Your task to perform on an android device: Go to Yahoo.com Image 0: 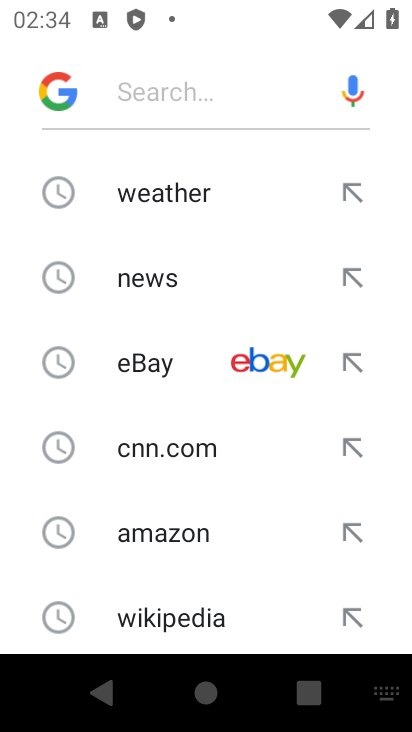
Step 0: press home button
Your task to perform on an android device: Go to Yahoo.com Image 1: 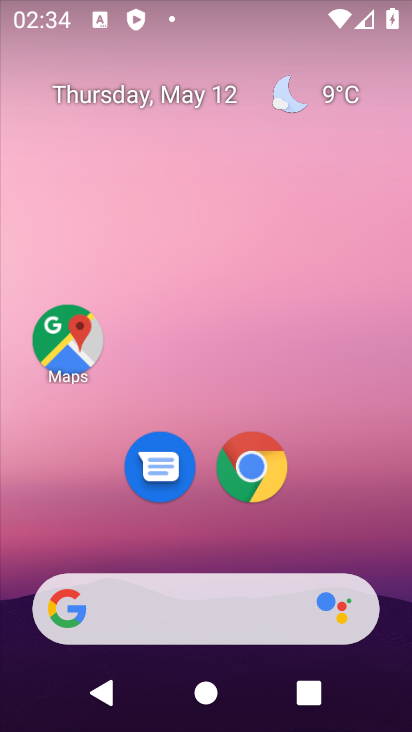
Step 1: drag from (303, 493) to (297, 208)
Your task to perform on an android device: Go to Yahoo.com Image 2: 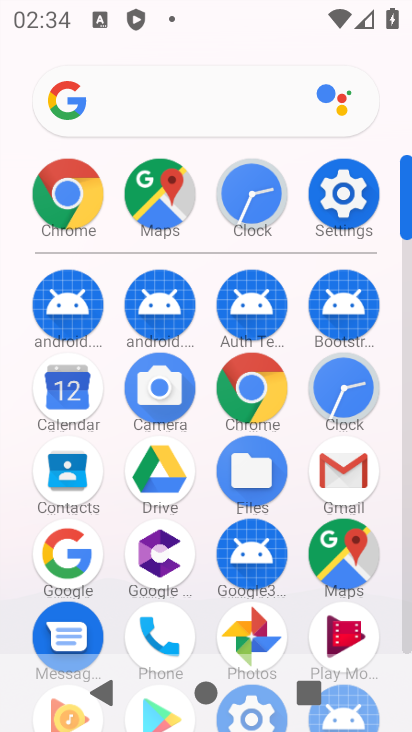
Step 2: click (65, 186)
Your task to perform on an android device: Go to Yahoo.com Image 3: 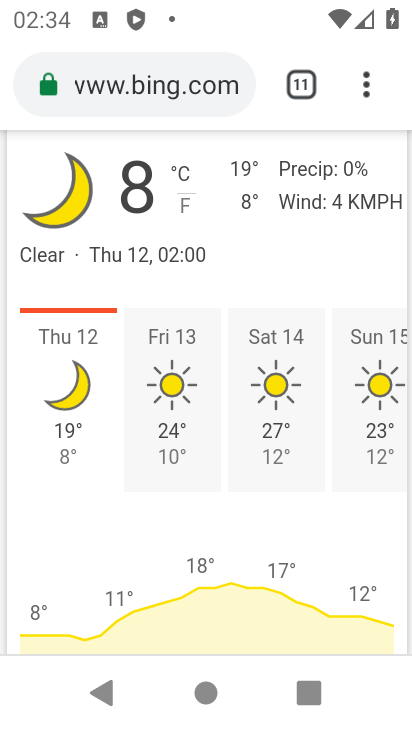
Step 3: drag from (255, 183) to (237, 527)
Your task to perform on an android device: Go to Yahoo.com Image 4: 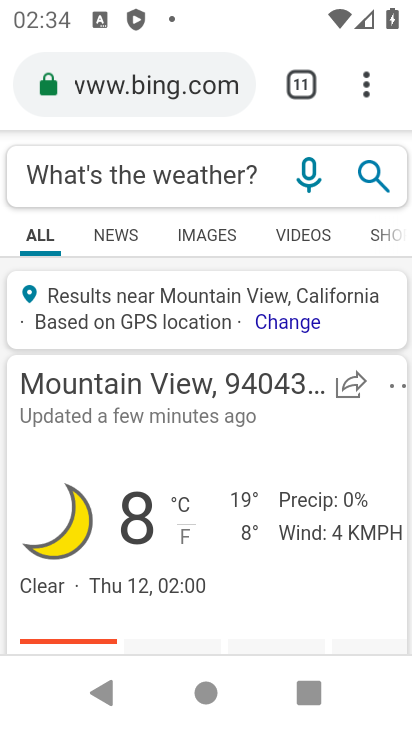
Step 4: click (335, 83)
Your task to perform on an android device: Go to Yahoo.com Image 5: 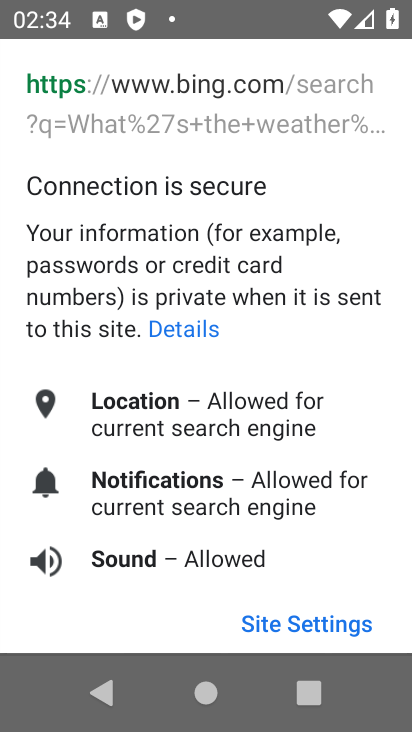
Step 5: press back button
Your task to perform on an android device: Go to Yahoo.com Image 6: 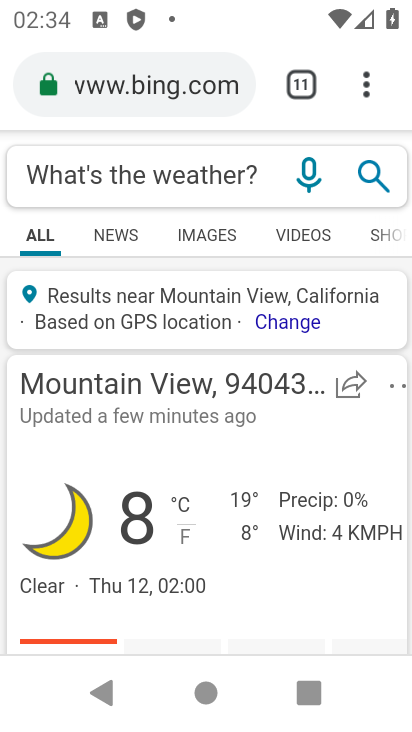
Step 6: click (344, 80)
Your task to perform on an android device: Go to Yahoo.com Image 7: 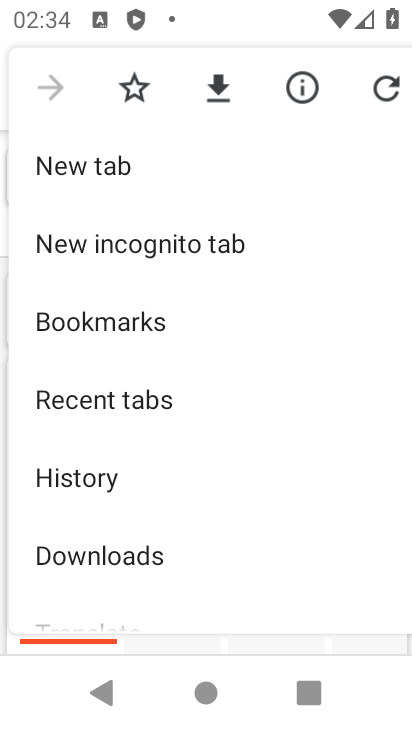
Step 7: click (130, 167)
Your task to perform on an android device: Go to Yahoo.com Image 8: 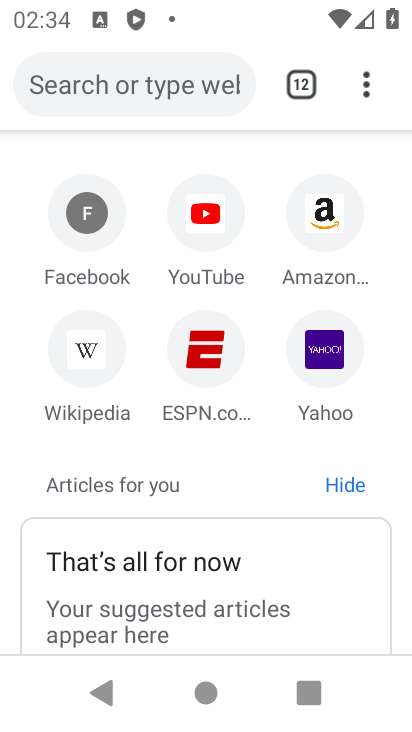
Step 8: click (304, 353)
Your task to perform on an android device: Go to Yahoo.com Image 9: 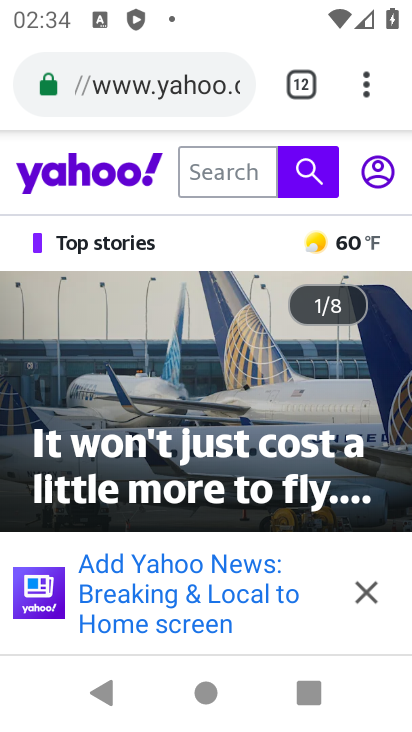
Step 9: task complete